Your task to perform on an android device: Go to ESPN.com Image 0: 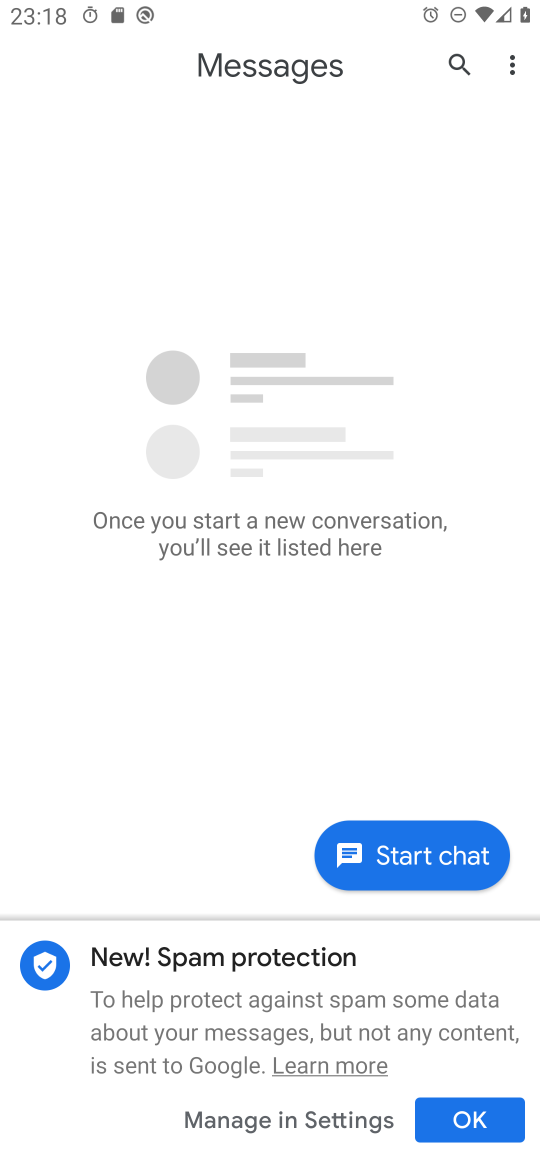
Step 0: press home button
Your task to perform on an android device: Go to ESPN.com Image 1: 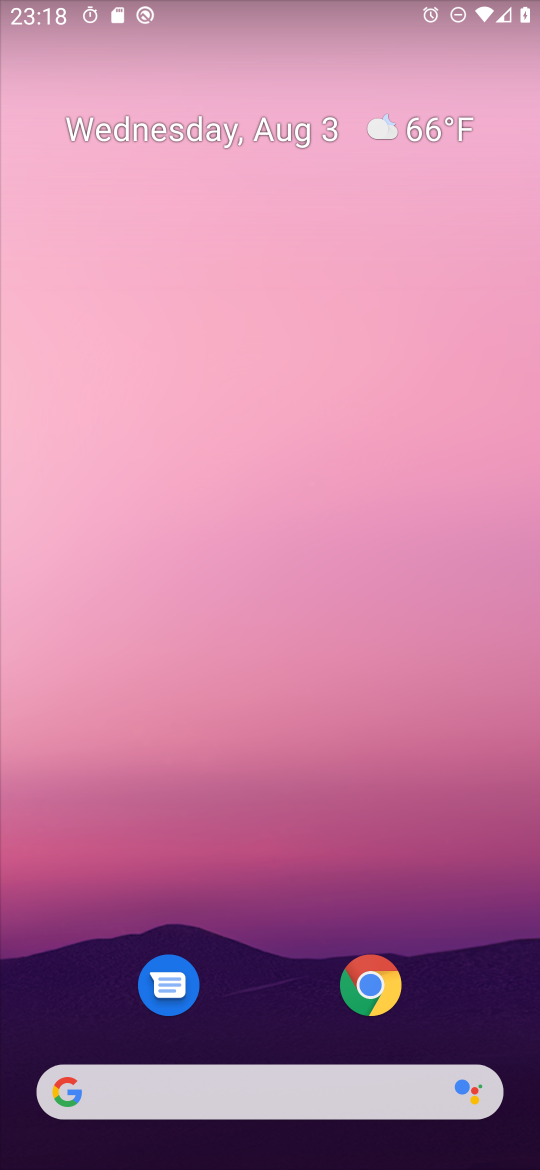
Step 1: click (353, 996)
Your task to perform on an android device: Go to ESPN.com Image 2: 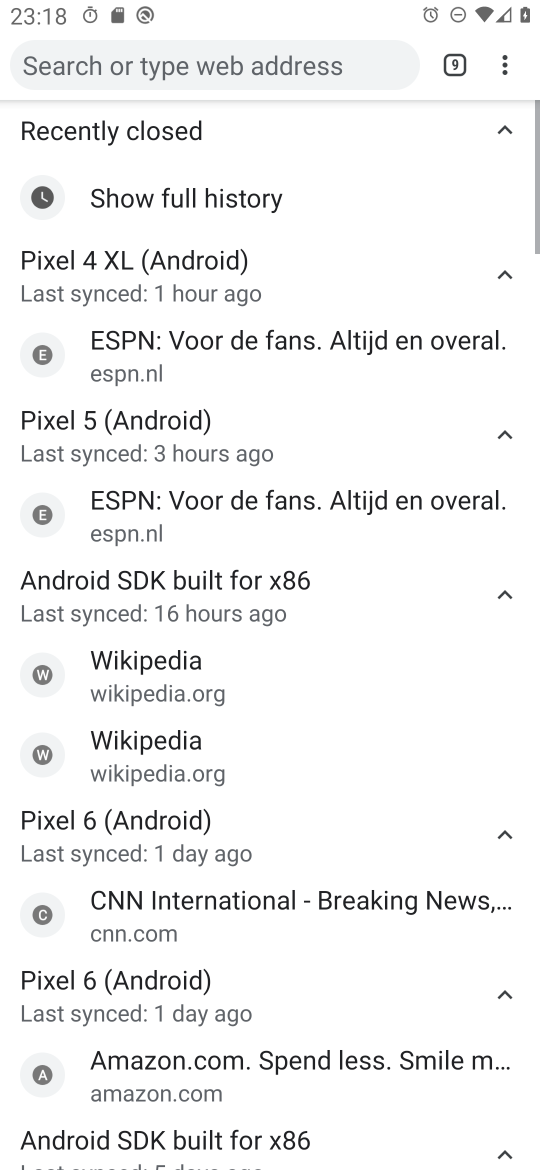
Step 2: click (452, 58)
Your task to perform on an android device: Go to ESPN.com Image 3: 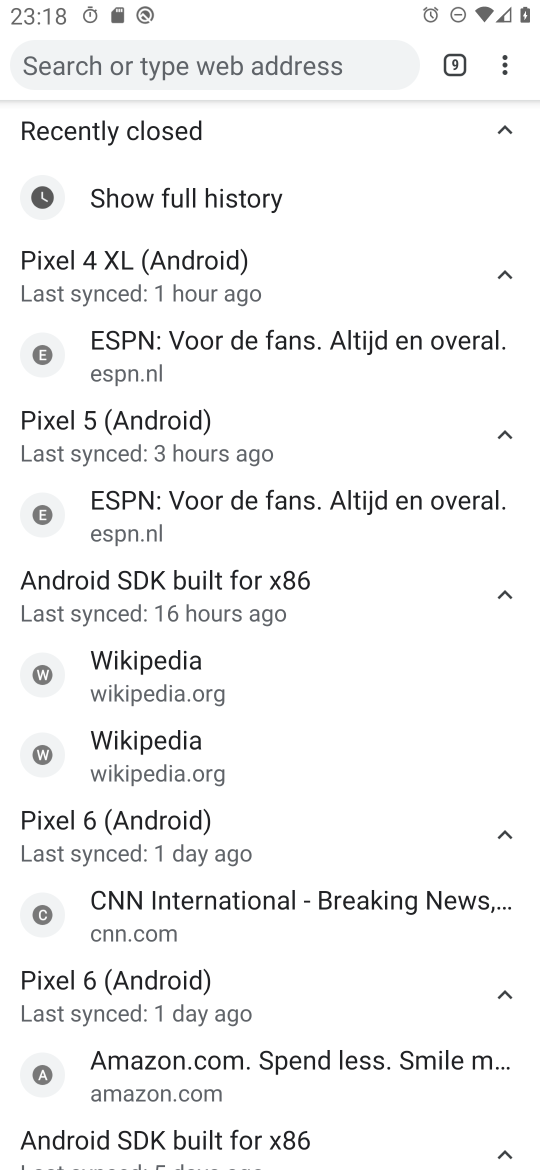
Step 3: click (454, 77)
Your task to perform on an android device: Go to ESPN.com Image 4: 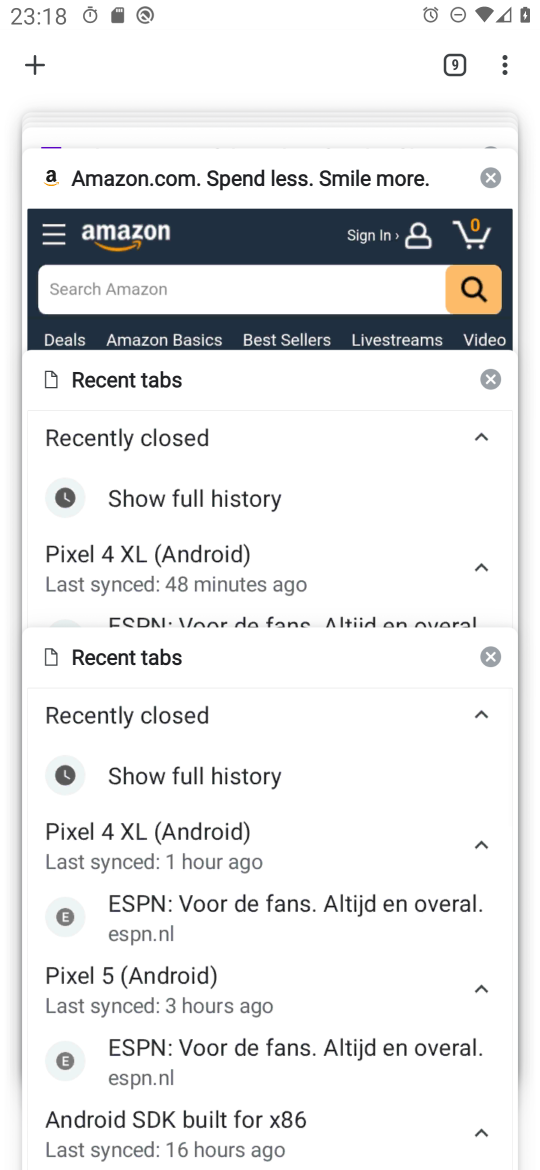
Step 4: click (43, 62)
Your task to perform on an android device: Go to ESPN.com Image 5: 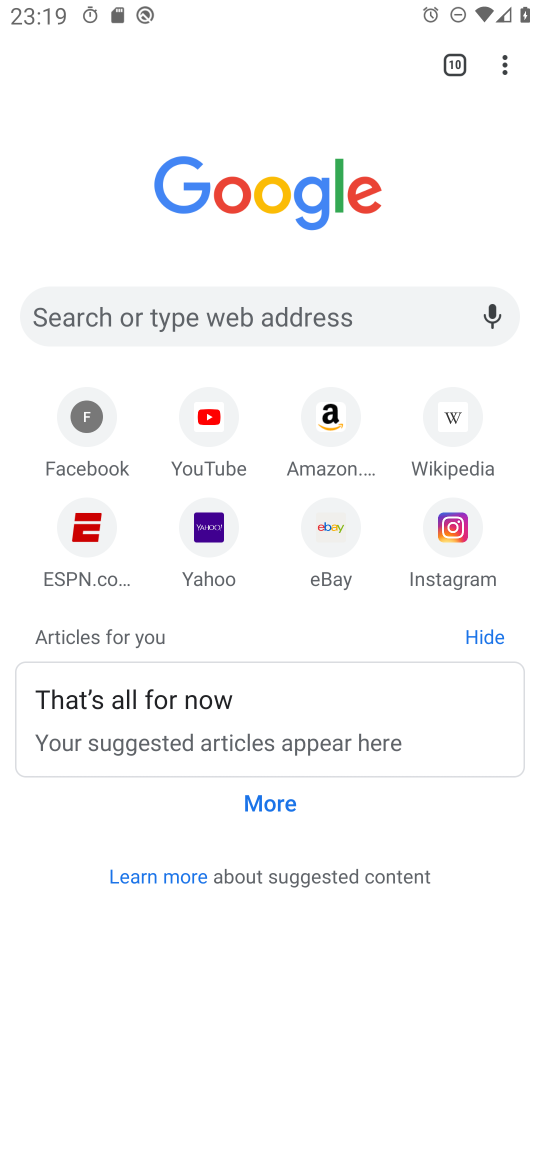
Step 5: click (71, 550)
Your task to perform on an android device: Go to ESPN.com Image 6: 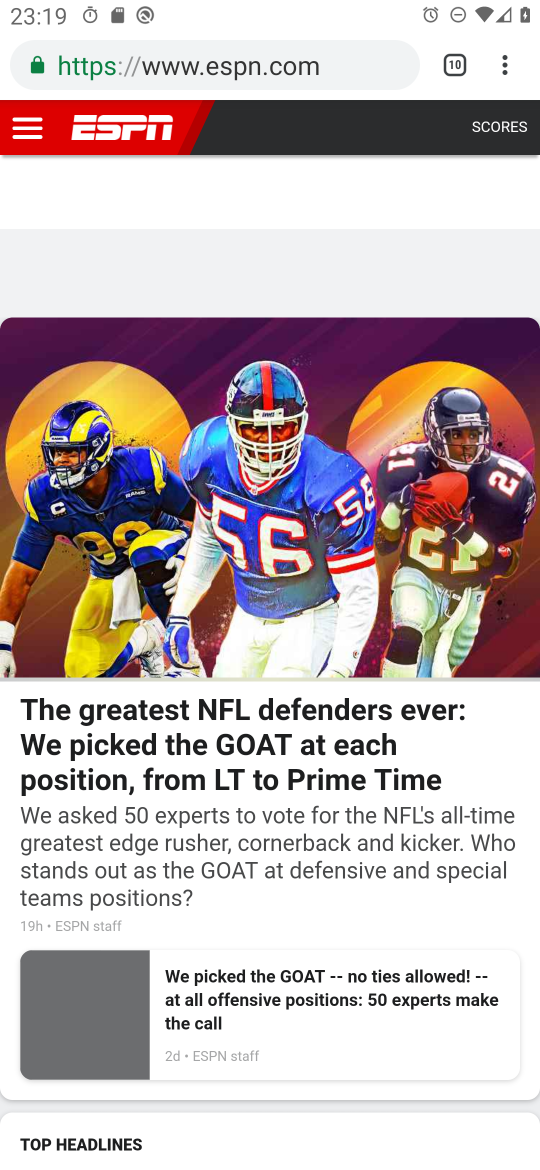
Step 6: task complete